Your task to perform on an android device: install app "DoorDash - Food Delivery" Image 0: 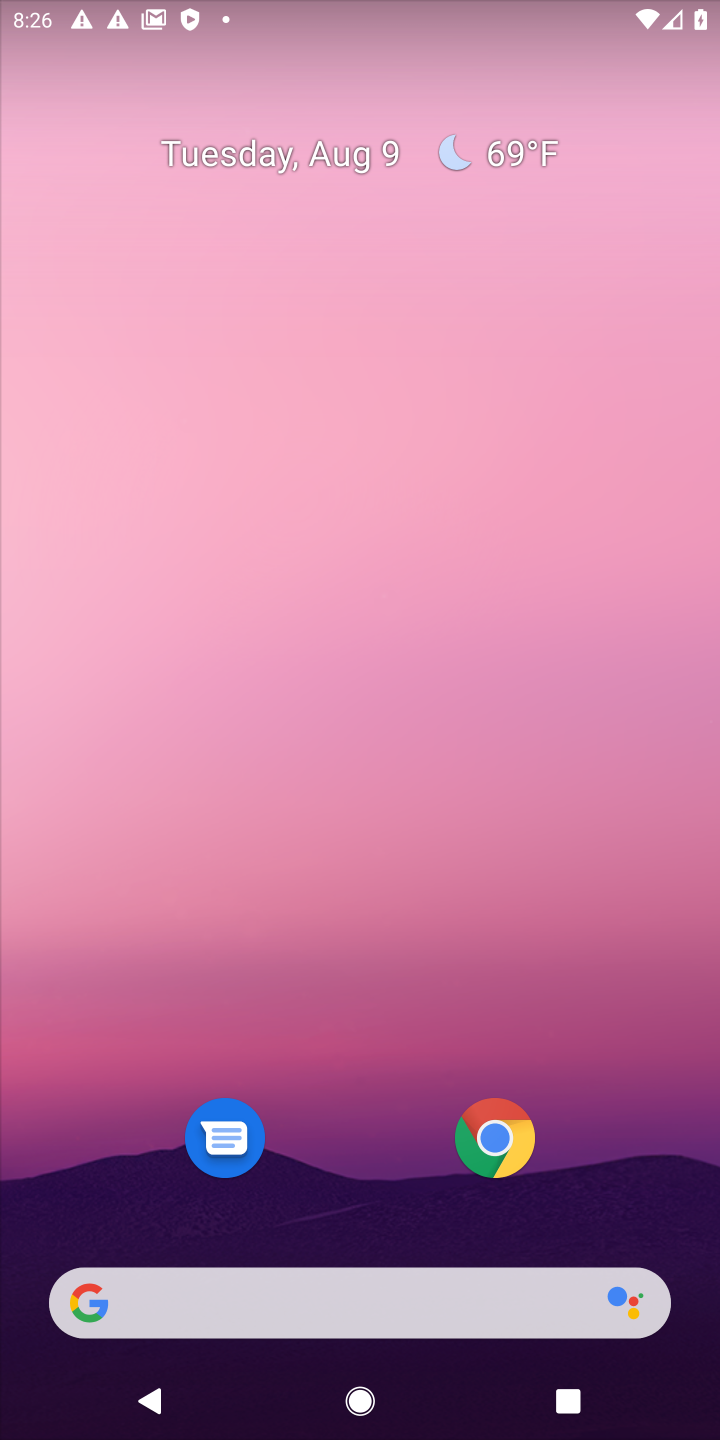
Step 0: drag from (420, 1245) to (527, 245)
Your task to perform on an android device: install app "DoorDash - Food Delivery" Image 1: 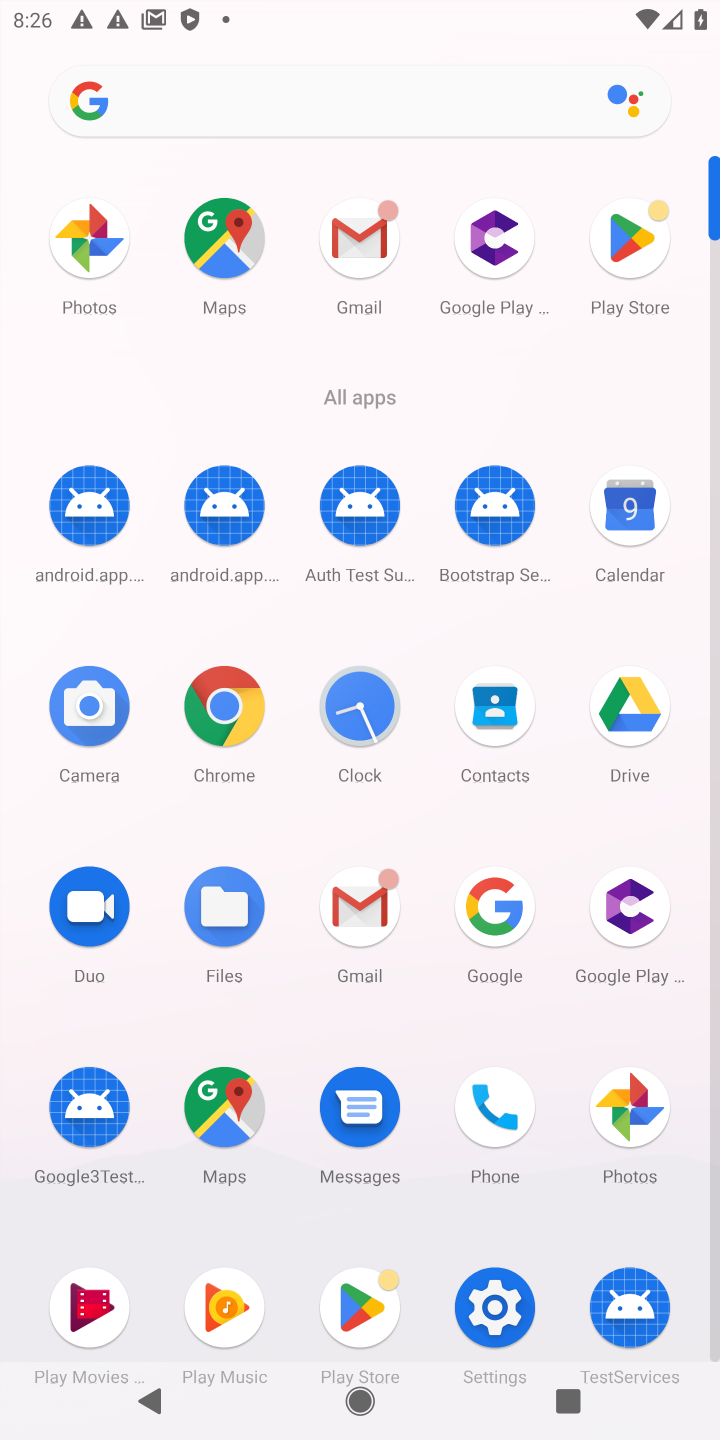
Step 1: click (632, 216)
Your task to perform on an android device: install app "DoorDash - Food Delivery" Image 2: 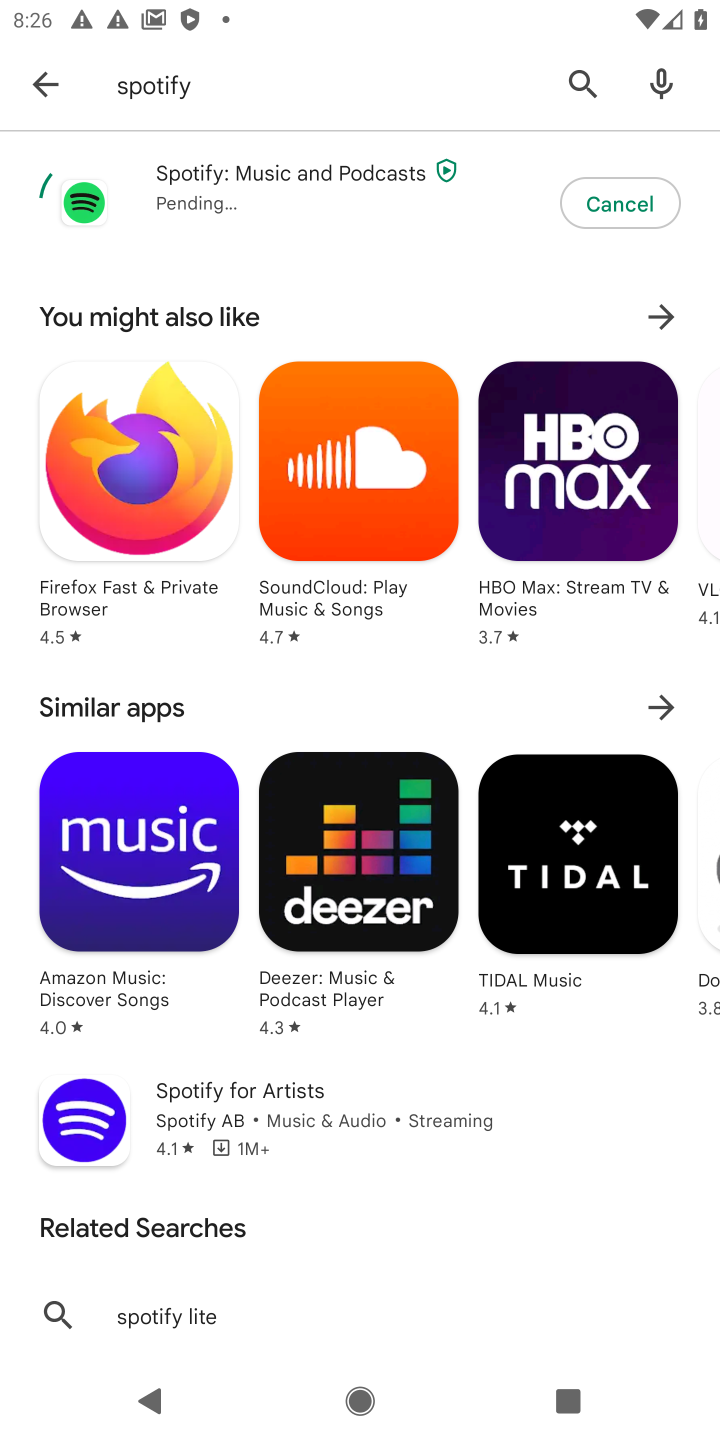
Step 2: click (586, 97)
Your task to perform on an android device: install app "DoorDash - Food Delivery" Image 3: 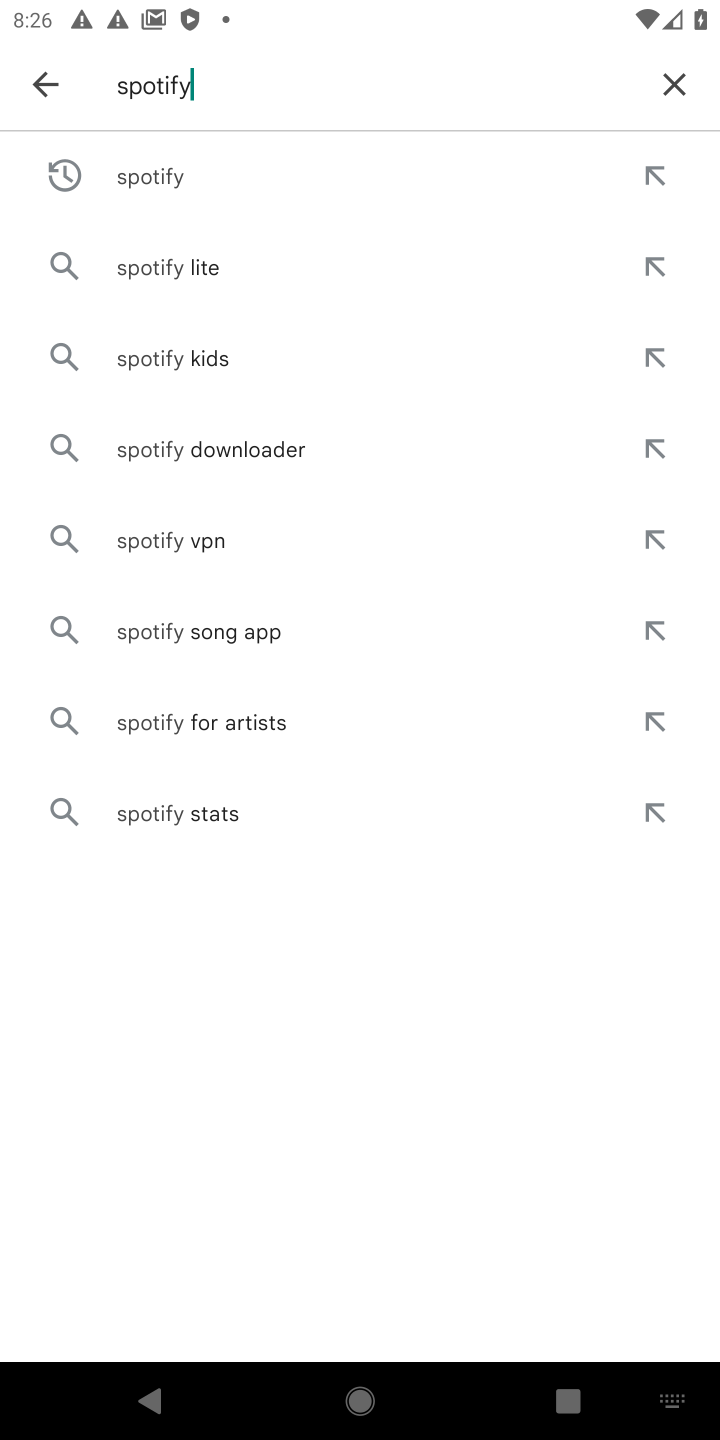
Step 3: click (647, 74)
Your task to perform on an android device: install app "DoorDash - Food Delivery" Image 4: 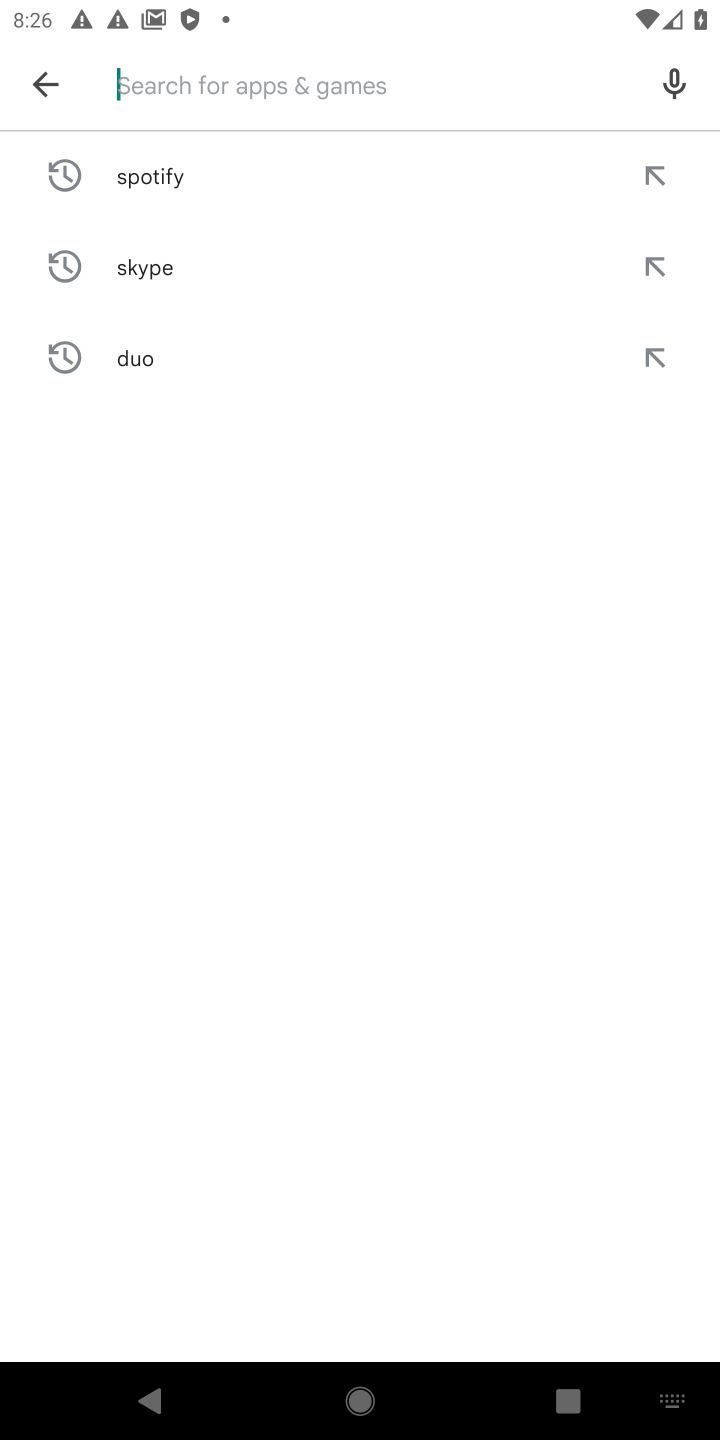
Step 4: type "doordash"
Your task to perform on an android device: install app "DoorDash - Food Delivery" Image 5: 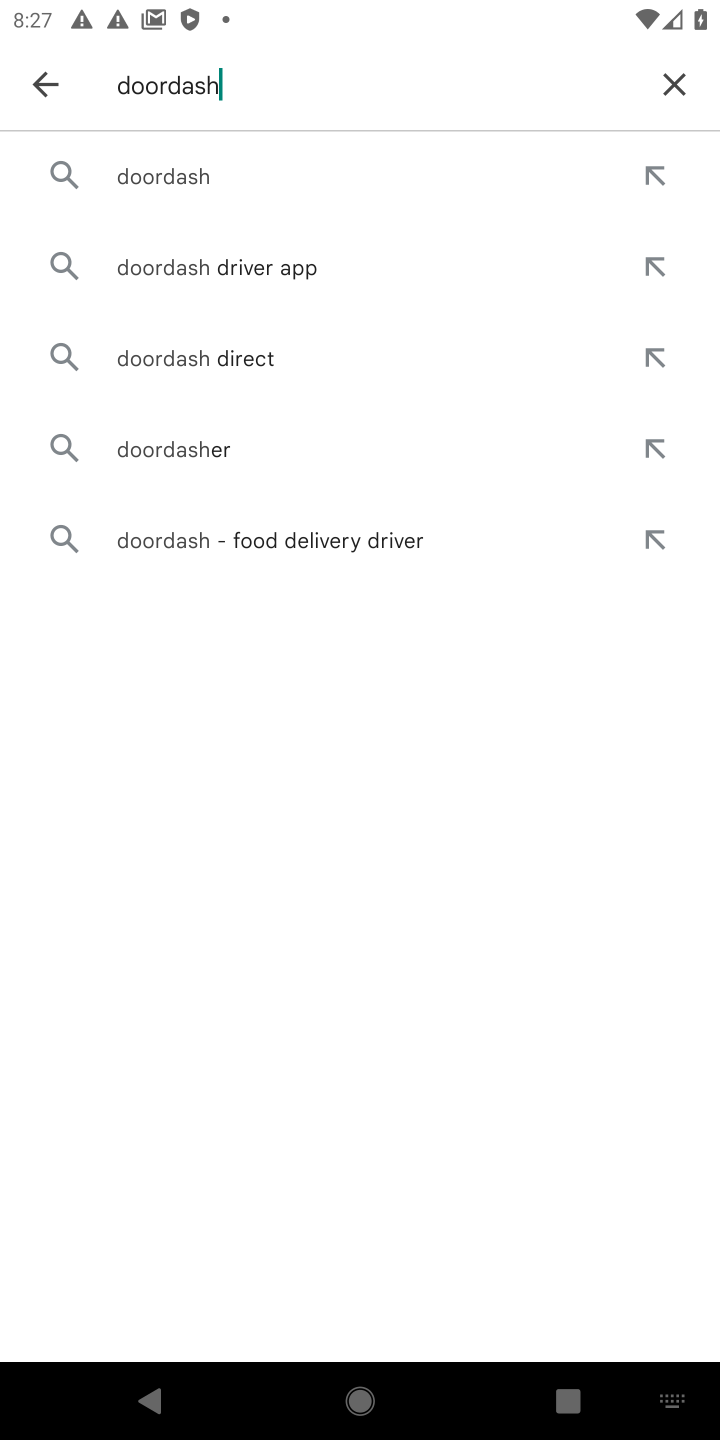
Step 5: click (437, 159)
Your task to perform on an android device: install app "DoorDash - Food Delivery" Image 6: 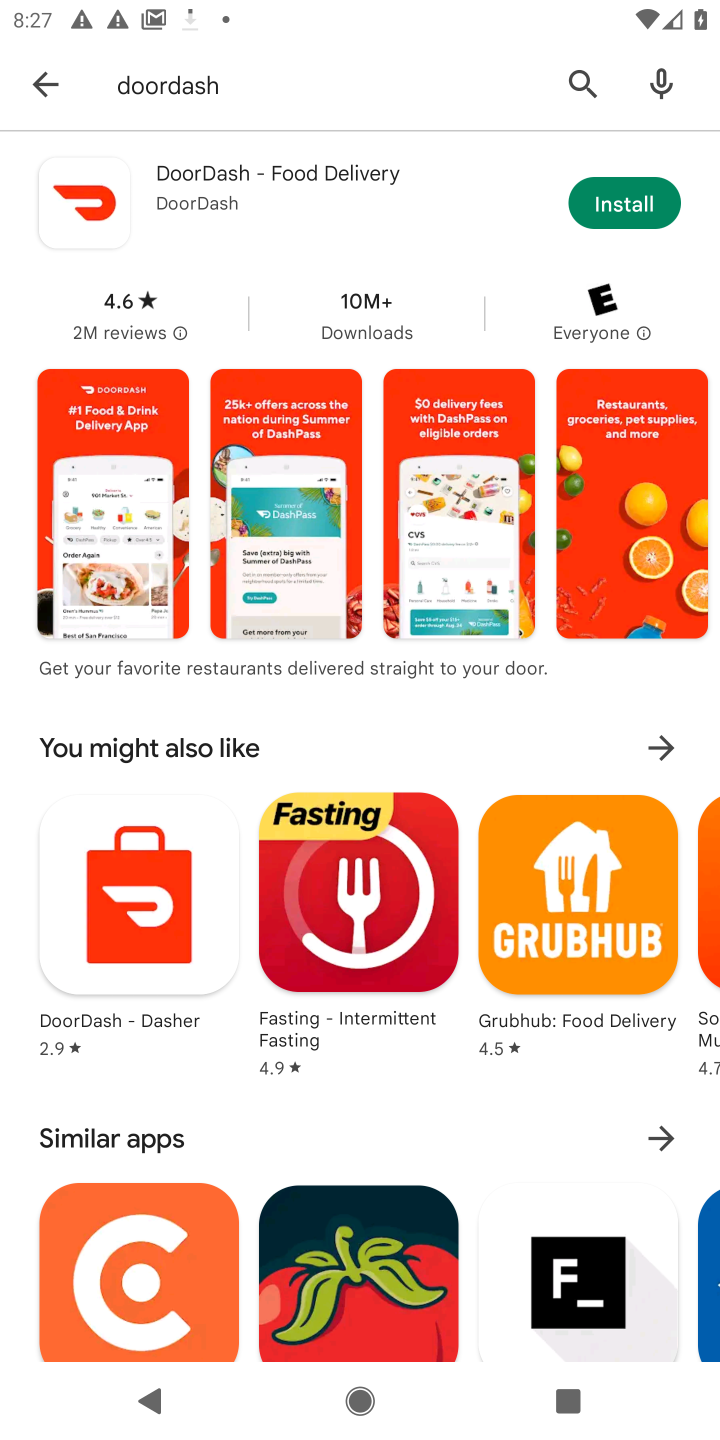
Step 6: click (646, 218)
Your task to perform on an android device: install app "DoorDash - Food Delivery" Image 7: 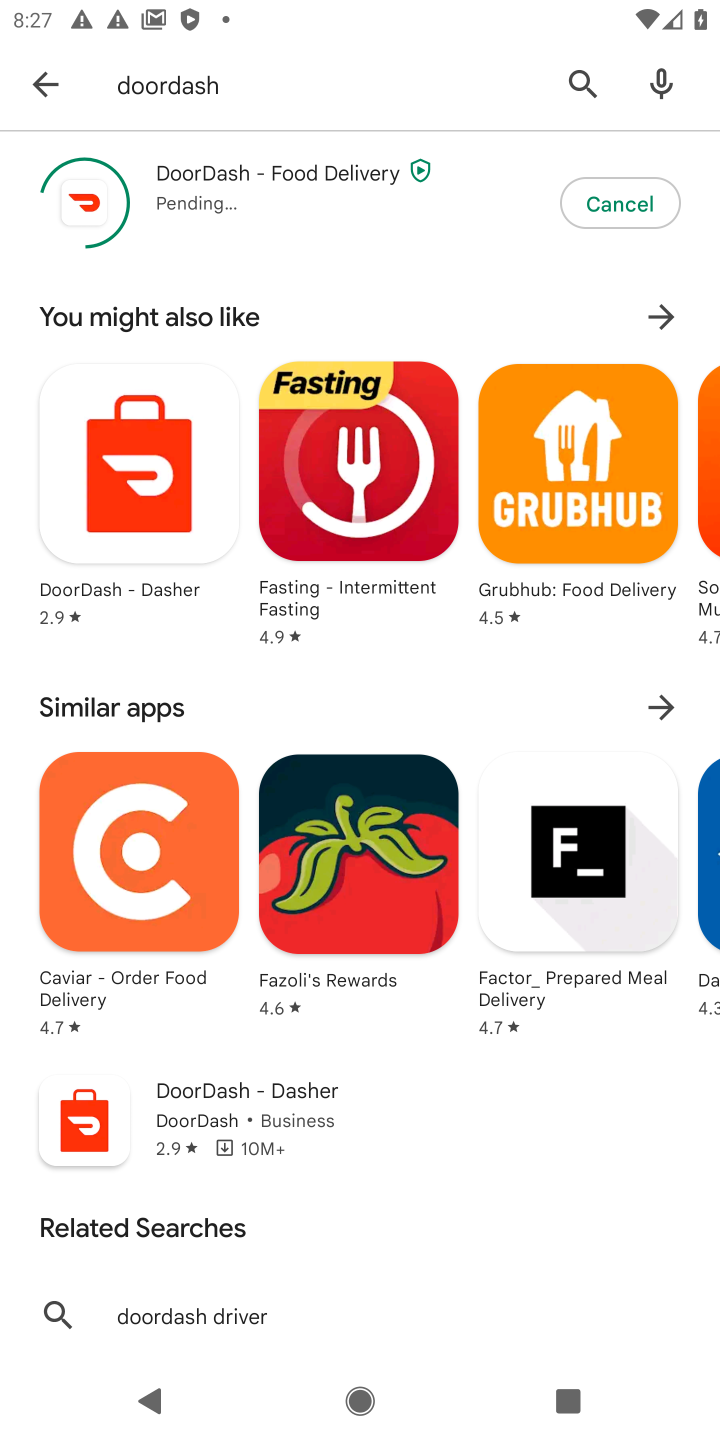
Step 7: task complete